Your task to perform on an android device: Show me popular games on the Play Store Image 0: 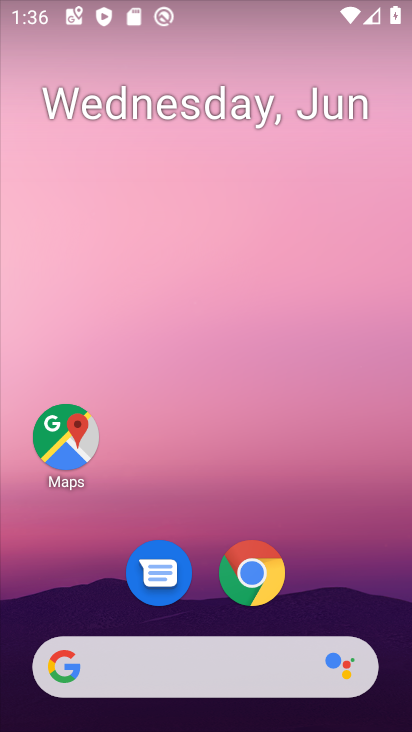
Step 0: drag from (324, 595) to (322, 162)
Your task to perform on an android device: Show me popular games on the Play Store Image 1: 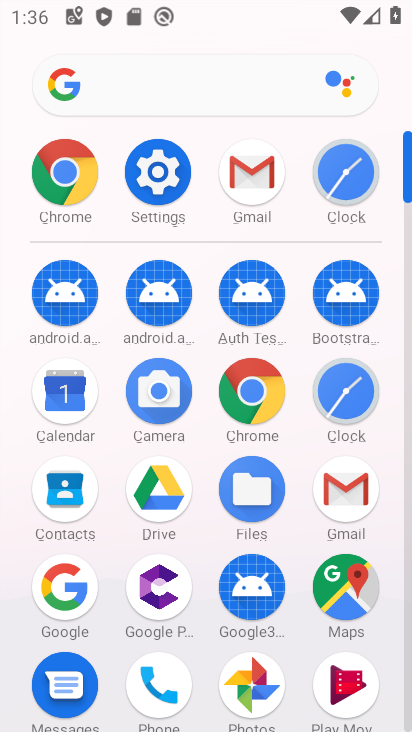
Step 1: drag from (234, 591) to (230, 231)
Your task to perform on an android device: Show me popular games on the Play Store Image 2: 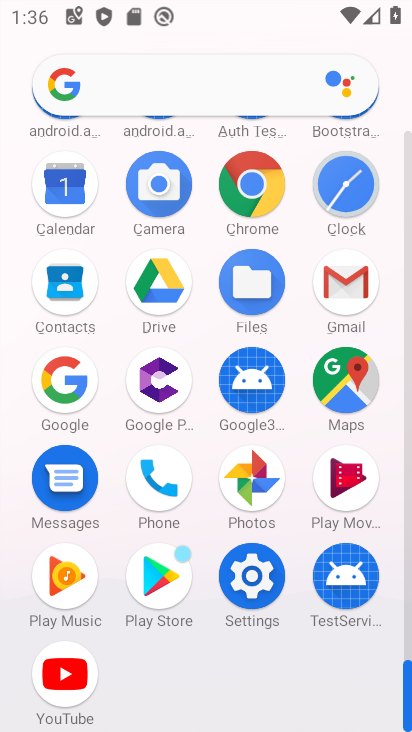
Step 2: click (129, 592)
Your task to perform on an android device: Show me popular games on the Play Store Image 3: 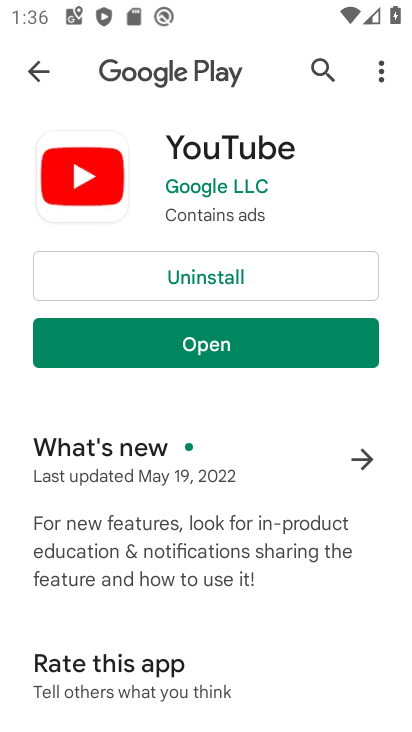
Step 3: click (54, 59)
Your task to perform on an android device: Show me popular games on the Play Store Image 4: 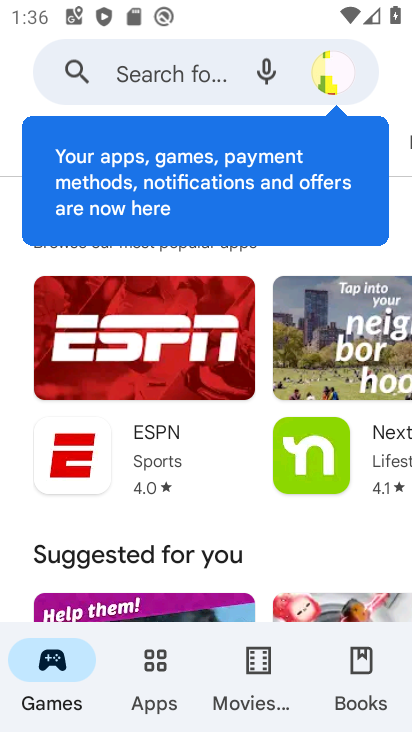
Step 4: click (163, 682)
Your task to perform on an android device: Show me popular games on the Play Store Image 5: 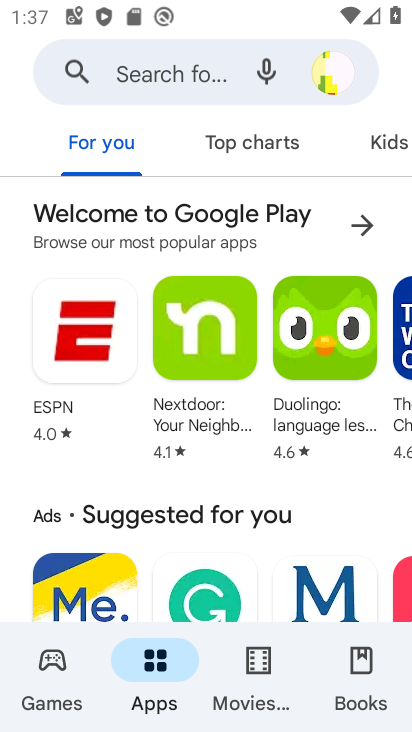
Step 5: click (60, 696)
Your task to perform on an android device: Show me popular games on the Play Store Image 6: 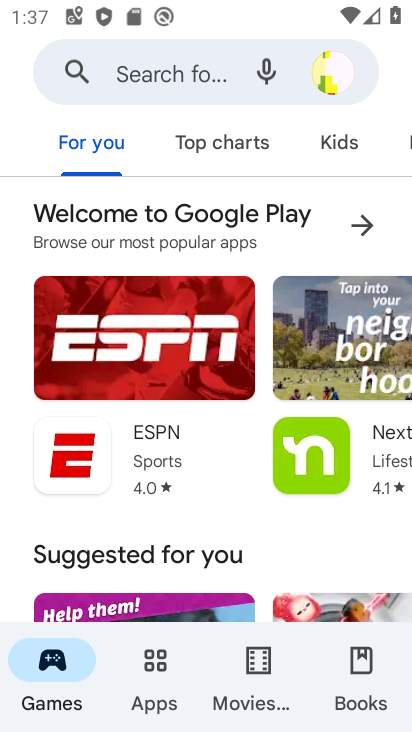
Step 6: drag from (301, 143) to (183, 135)
Your task to perform on an android device: Show me popular games on the Play Store Image 7: 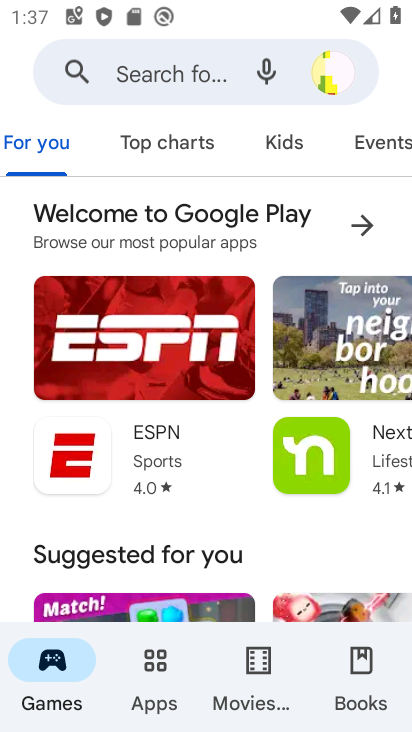
Step 7: click (197, 128)
Your task to perform on an android device: Show me popular games on the Play Store Image 8: 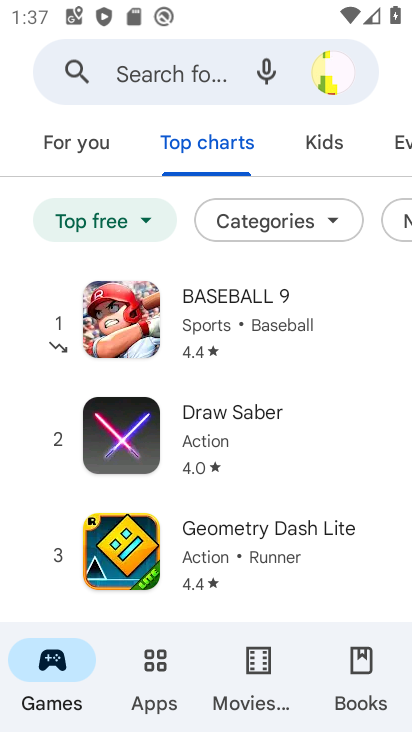
Step 8: click (81, 156)
Your task to perform on an android device: Show me popular games on the Play Store Image 9: 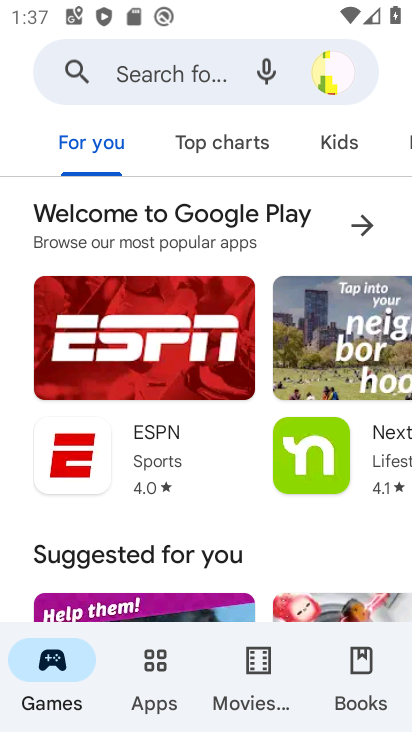
Step 9: click (204, 136)
Your task to perform on an android device: Show me popular games on the Play Store Image 10: 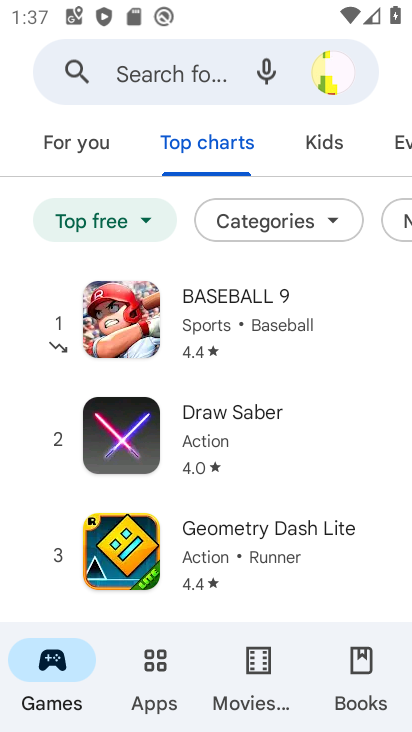
Step 10: task complete